Your task to perform on an android device: turn on showing notifications on the lock screen Image 0: 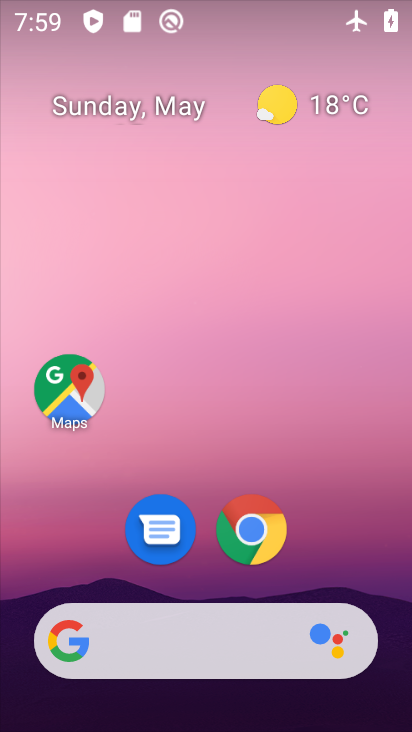
Step 0: drag from (359, 596) to (385, 19)
Your task to perform on an android device: turn on showing notifications on the lock screen Image 1: 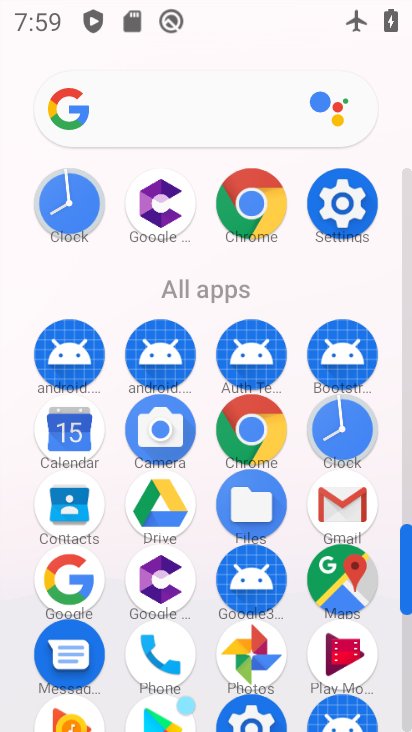
Step 1: click (334, 195)
Your task to perform on an android device: turn on showing notifications on the lock screen Image 2: 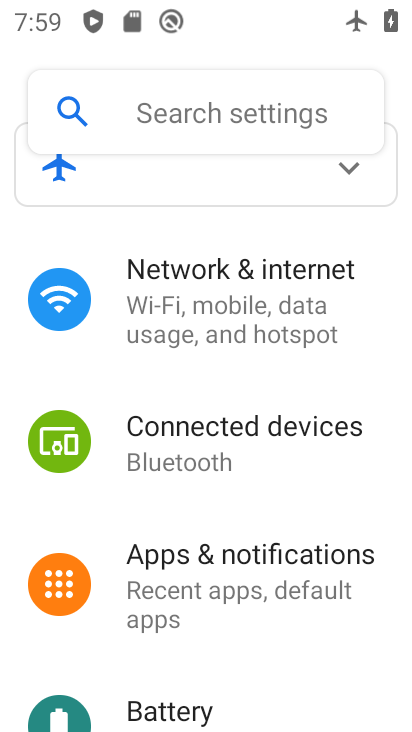
Step 2: click (205, 556)
Your task to perform on an android device: turn on showing notifications on the lock screen Image 3: 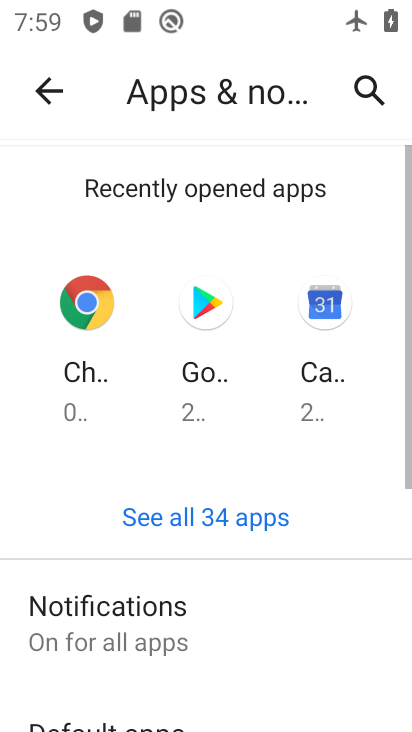
Step 3: click (134, 629)
Your task to perform on an android device: turn on showing notifications on the lock screen Image 4: 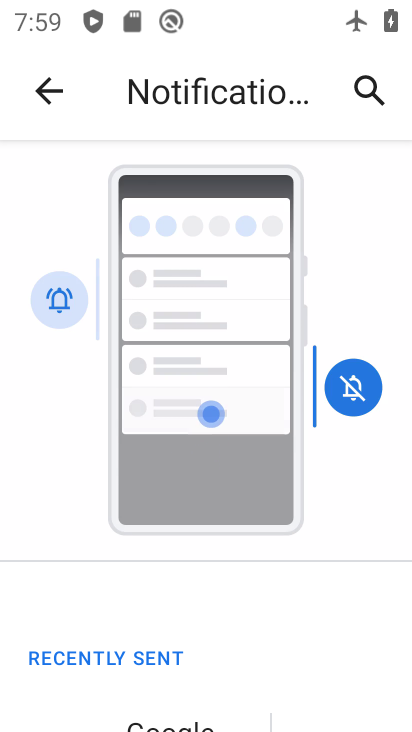
Step 4: drag from (241, 625) to (250, 197)
Your task to perform on an android device: turn on showing notifications on the lock screen Image 5: 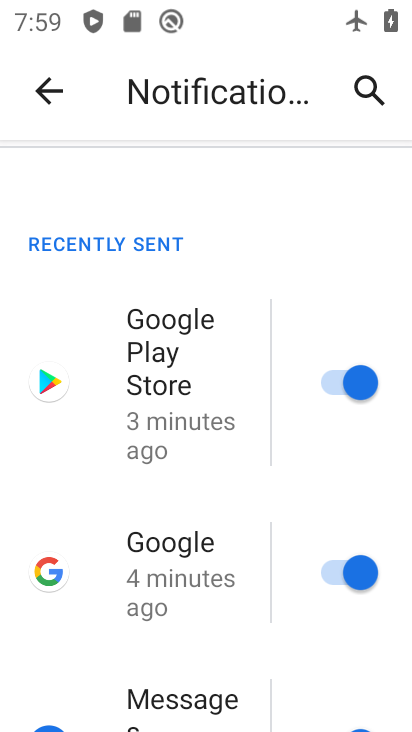
Step 5: drag from (180, 574) to (162, 160)
Your task to perform on an android device: turn on showing notifications on the lock screen Image 6: 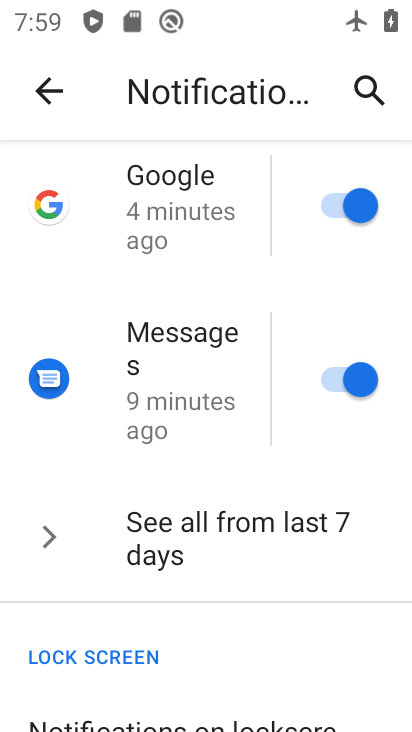
Step 6: drag from (153, 538) to (163, 164)
Your task to perform on an android device: turn on showing notifications on the lock screen Image 7: 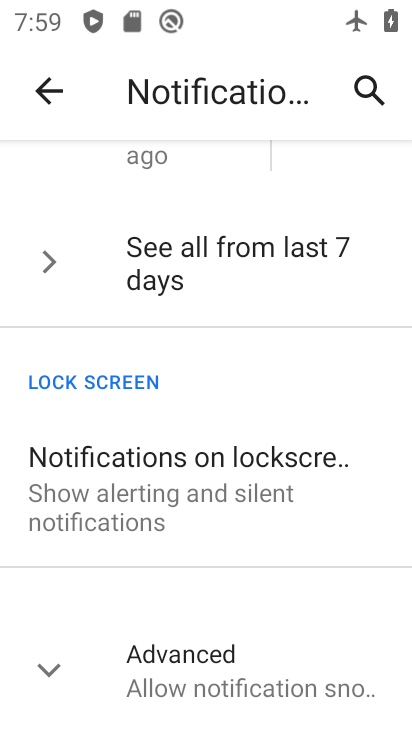
Step 7: click (122, 504)
Your task to perform on an android device: turn on showing notifications on the lock screen Image 8: 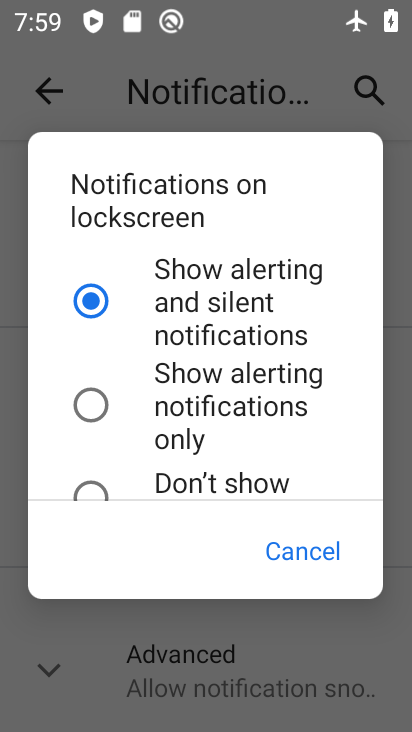
Step 8: task complete